Your task to perform on an android device: show emergency info Image 0: 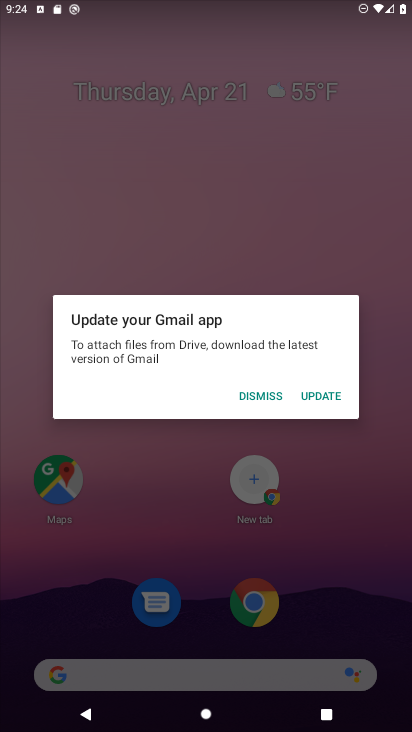
Step 0: press home button
Your task to perform on an android device: show emergency info Image 1: 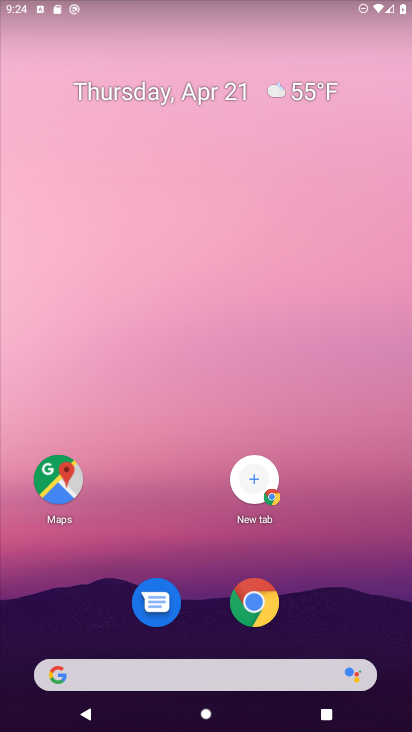
Step 1: drag from (213, 637) to (75, 35)
Your task to perform on an android device: show emergency info Image 2: 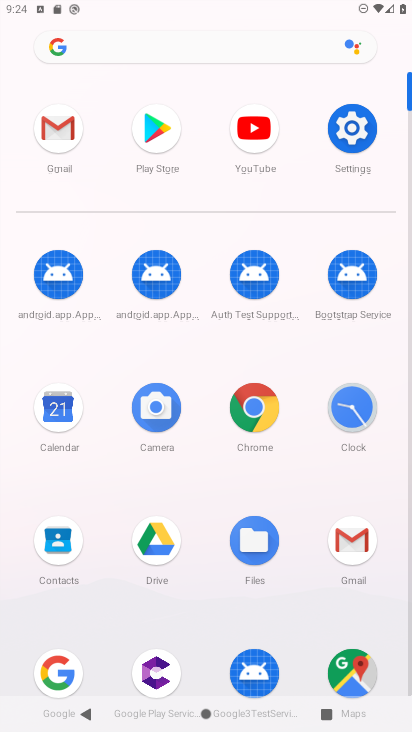
Step 2: click (341, 123)
Your task to perform on an android device: show emergency info Image 3: 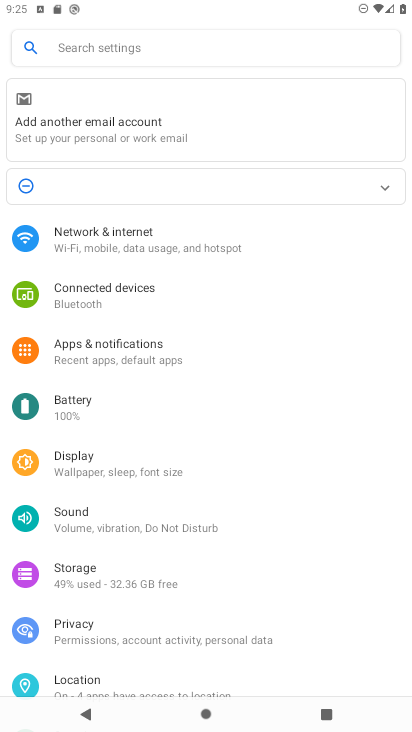
Step 3: drag from (136, 620) to (241, 79)
Your task to perform on an android device: show emergency info Image 4: 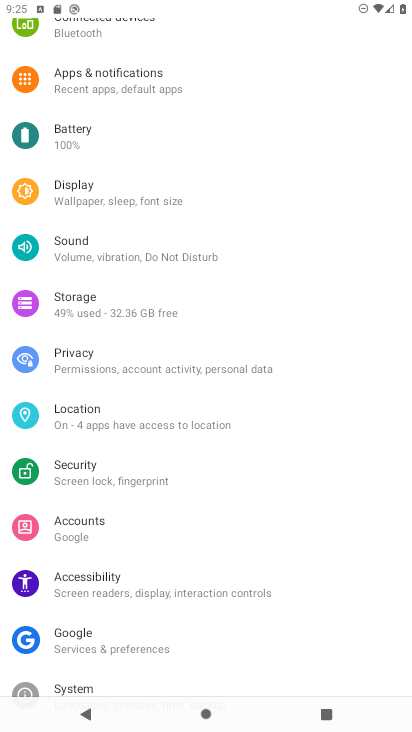
Step 4: drag from (93, 671) to (166, 144)
Your task to perform on an android device: show emergency info Image 5: 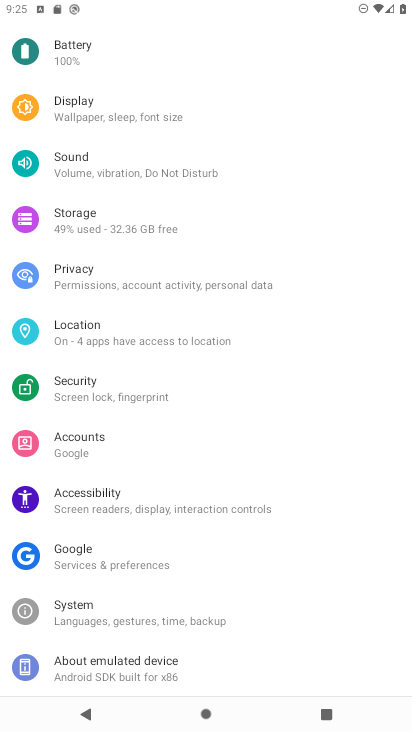
Step 5: click (163, 651)
Your task to perform on an android device: show emergency info Image 6: 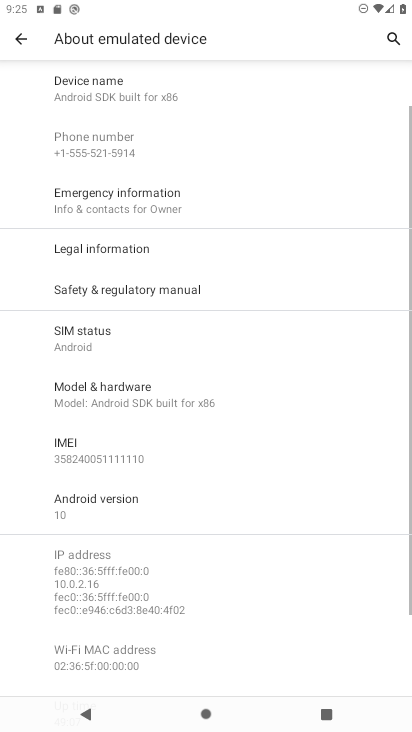
Step 6: click (263, 207)
Your task to perform on an android device: show emergency info Image 7: 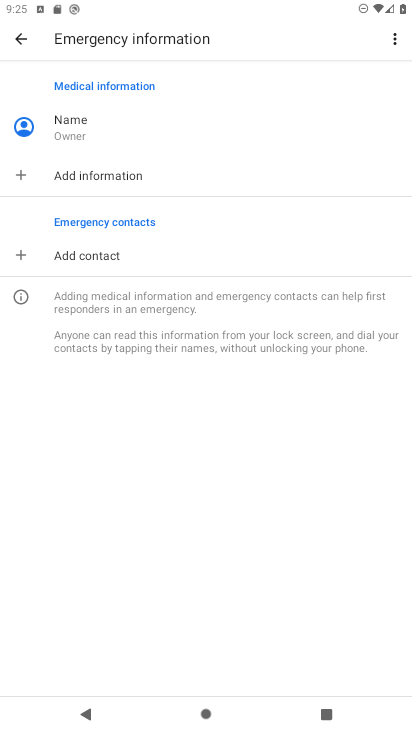
Step 7: task complete